Your task to perform on an android device: Go to accessibility settings Image 0: 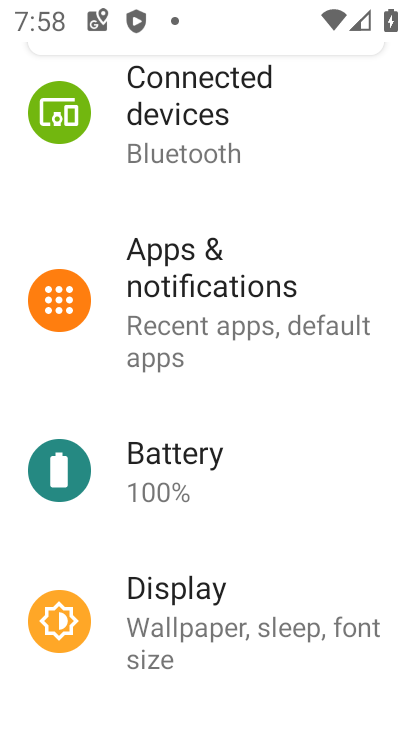
Step 0: drag from (333, 579) to (182, 42)
Your task to perform on an android device: Go to accessibility settings Image 1: 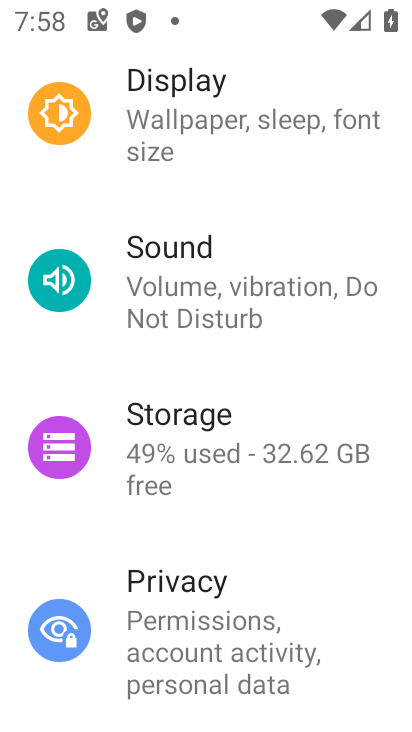
Step 1: click (260, 689)
Your task to perform on an android device: Go to accessibility settings Image 2: 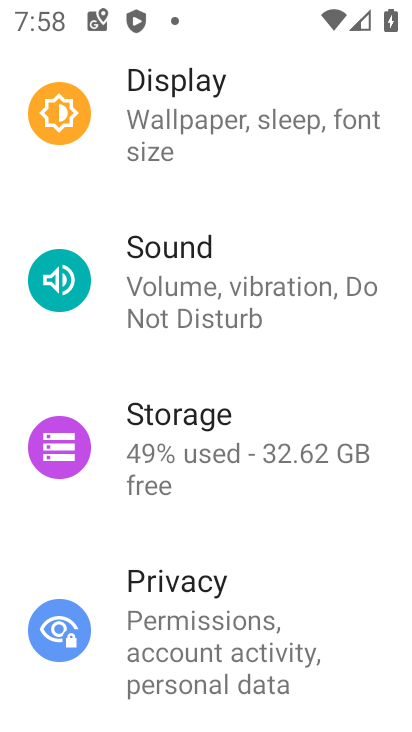
Step 2: drag from (260, 689) to (195, 32)
Your task to perform on an android device: Go to accessibility settings Image 3: 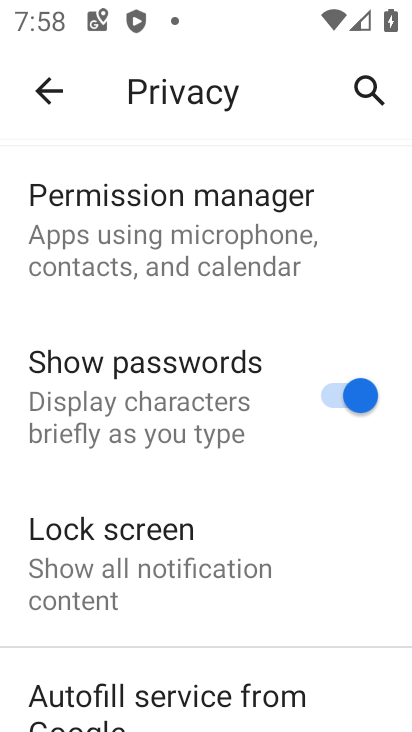
Step 3: press home button
Your task to perform on an android device: Go to accessibility settings Image 4: 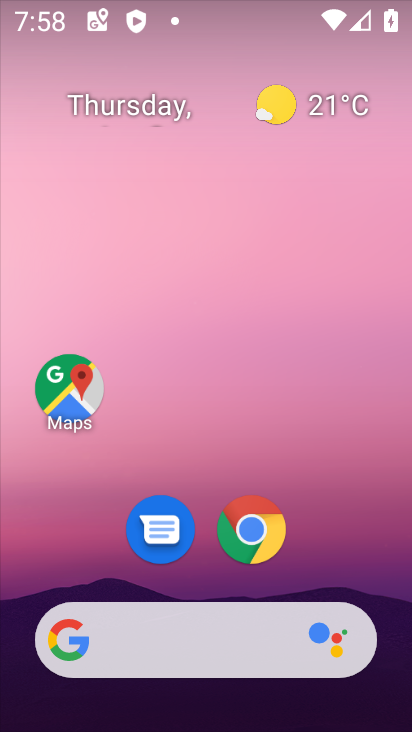
Step 4: drag from (176, 696) to (300, 125)
Your task to perform on an android device: Go to accessibility settings Image 5: 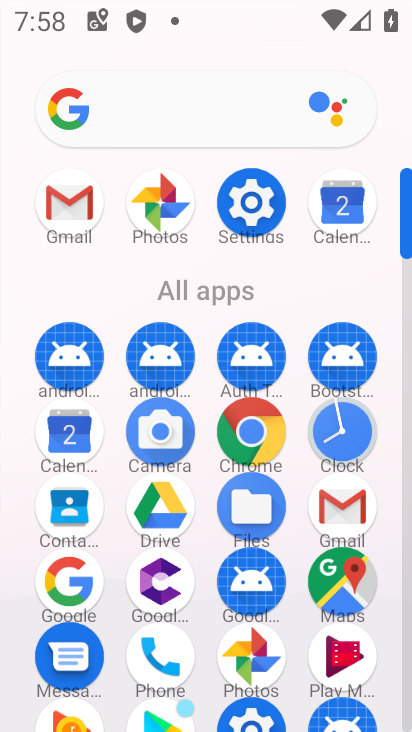
Step 5: click (245, 234)
Your task to perform on an android device: Go to accessibility settings Image 6: 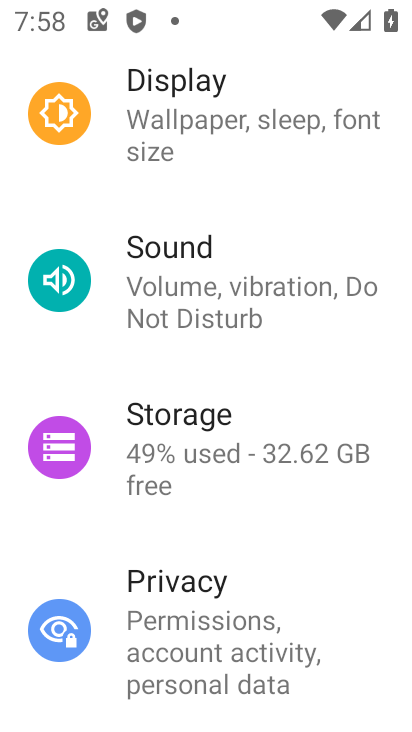
Step 6: drag from (350, 665) to (330, 157)
Your task to perform on an android device: Go to accessibility settings Image 7: 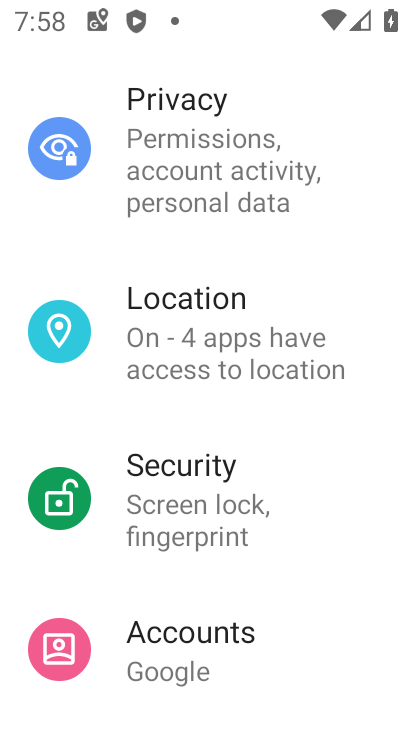
Step 7: drag from (350, 706) to (302, 62)
Your task to perform on an android device: Go to accessibility settings Image 8: 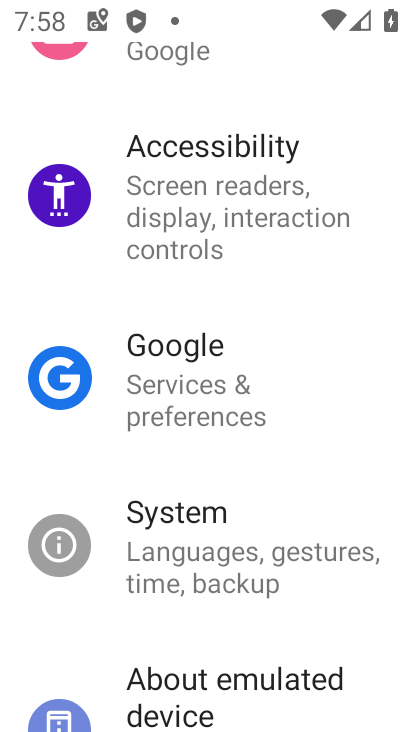
Step 8: click (230, 251)
Your task to perform on an android device: Go to accessibility settings Image 9: 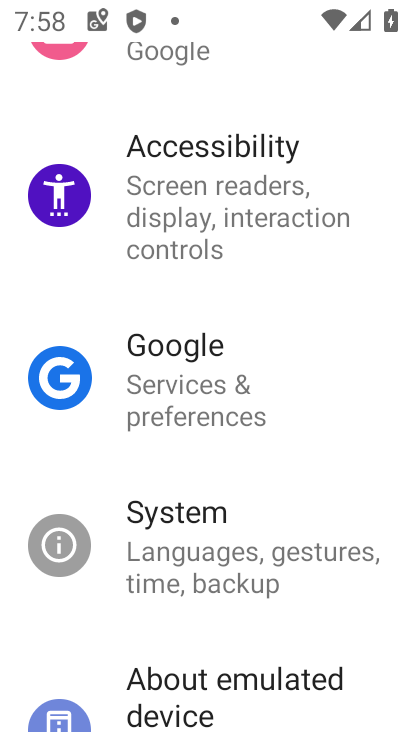
Step 9: click (230, 251)
Your task to perform on an android device: Go to accessibility settings Image 10: 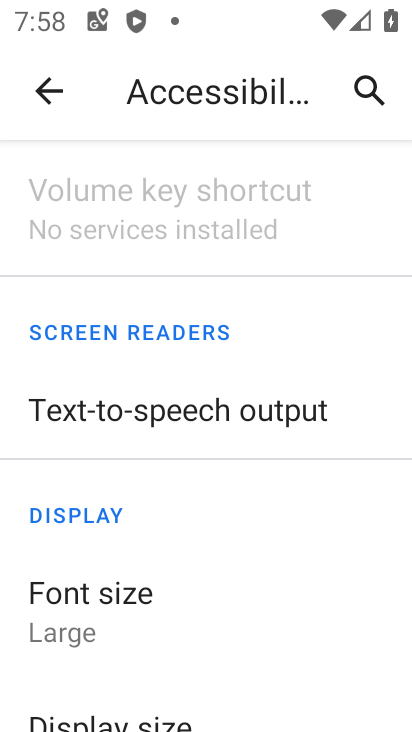
Step 10: task complete